Your task to perform on an android device: Open Google Chrome and open the bookmarks view Image 0: 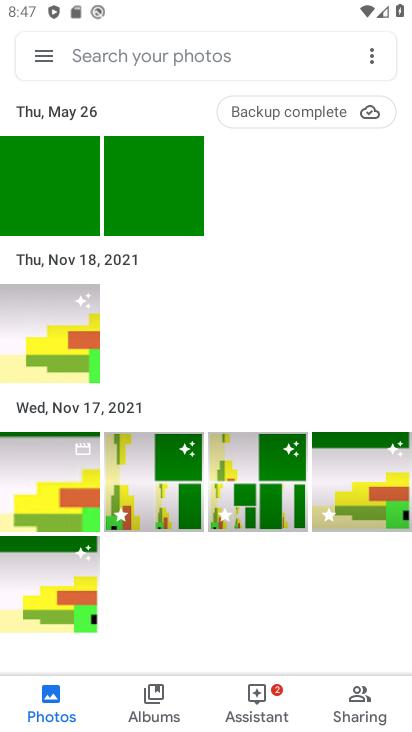
Step 0: press home button
Your task to perform on an android device: Open Google Chrome and open the bookmarks view Image 1: 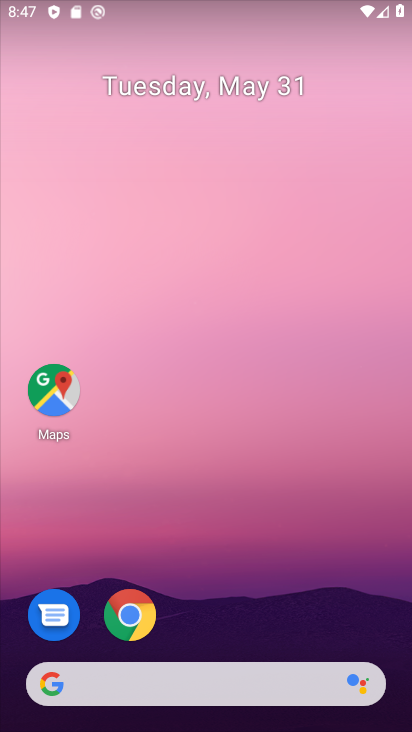
Step 1: click (126, 610)
Your task to perform on an android device: Open Google Chrome and open the bookmarks view Image 2: 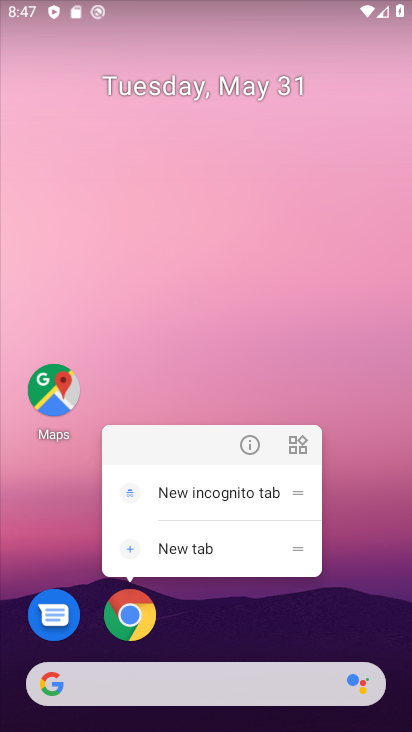
Step 2: click (126, 610)
Your task to perform on an android device: Open Google Chrome and open the bookmarks view Image 3: 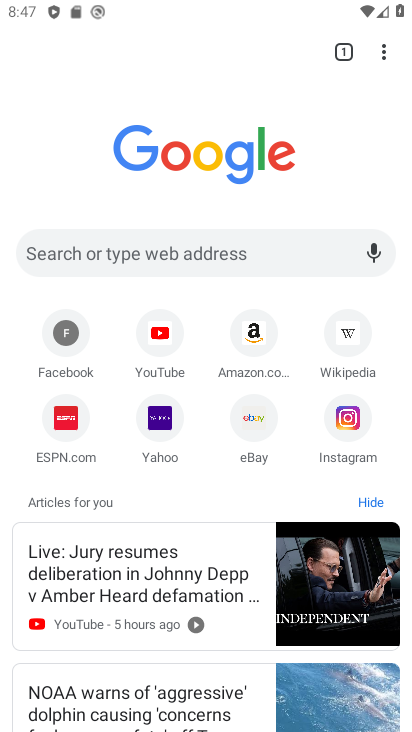
Step 3: click (379, 52)
Your task to perform on an android device: Open Google Chrome and open the bookmarks view Image 4: 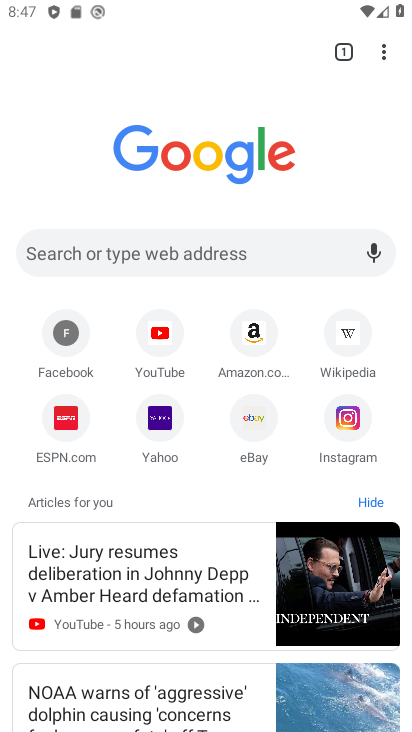
Step 4: task complete